Your task to perform on an android device: Open the calendar and show me this week's events? Image 0: 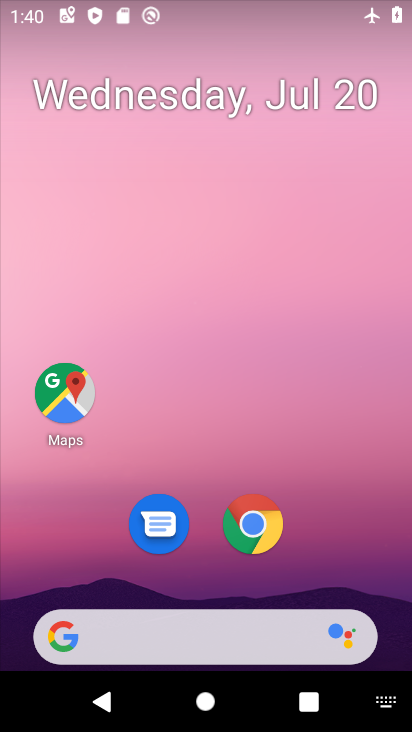
Step 0: drag from (314, 542) to (292, 80)
Your task to perform on an android device: Open the calendar and show me this week's events? Image 1: 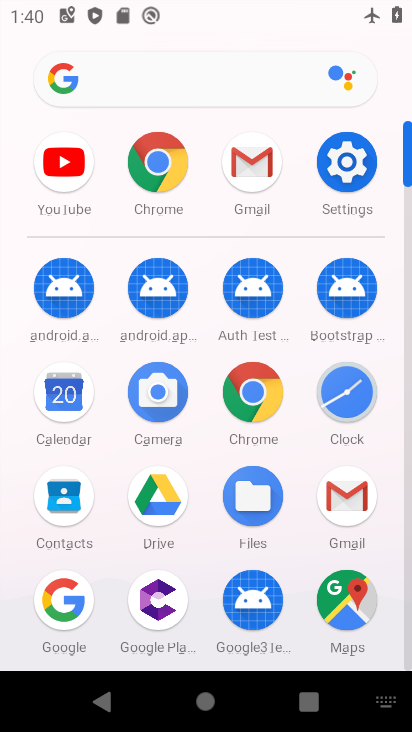
Step 1: click (62, 397)
Your task to perform on an android device: Open the calendar and show me this week's events? Image 2: 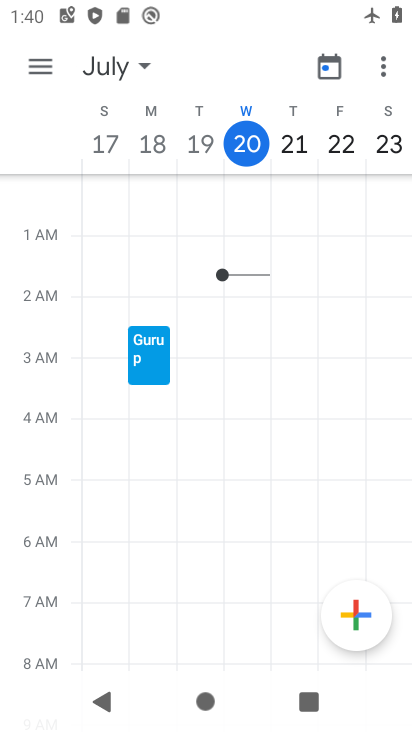
Step 2: task complete